Your task to perform on an android device: Go to Amazon Image 0: 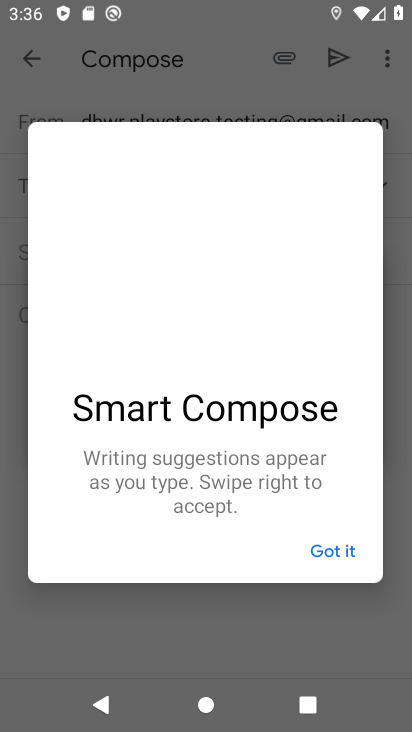
Step 0: press back button
Your task to perform on an android device: Go to Amazon Image 1: 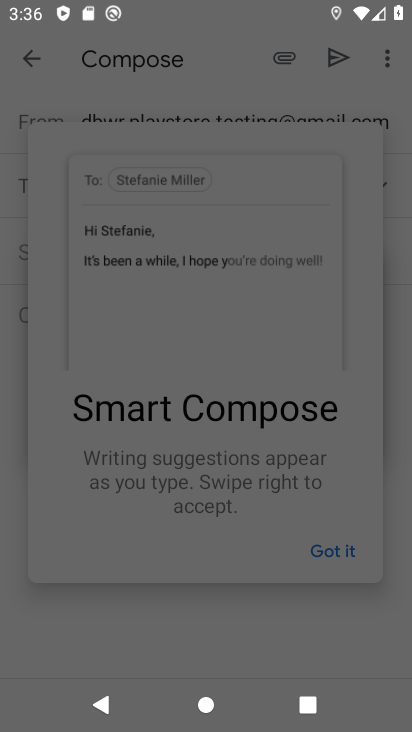
Step 1: press home button
Your task to perform on an android device: Go to Amazon Image 2: 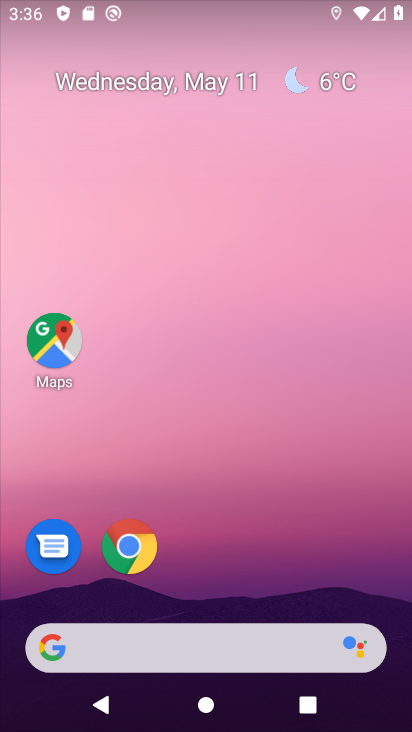
Step 2: click (147, 540)
Your task to perform on an android device: Go to Amazon Image 3: 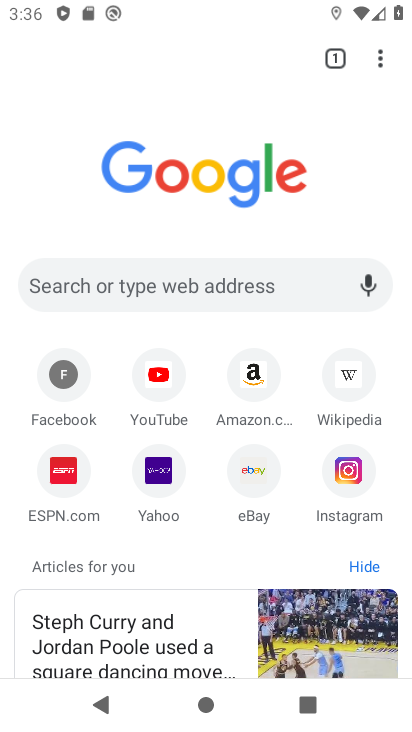
Step 3: click (271, 385)
Your task to perform on an android device: Go to Amazon Image 4: 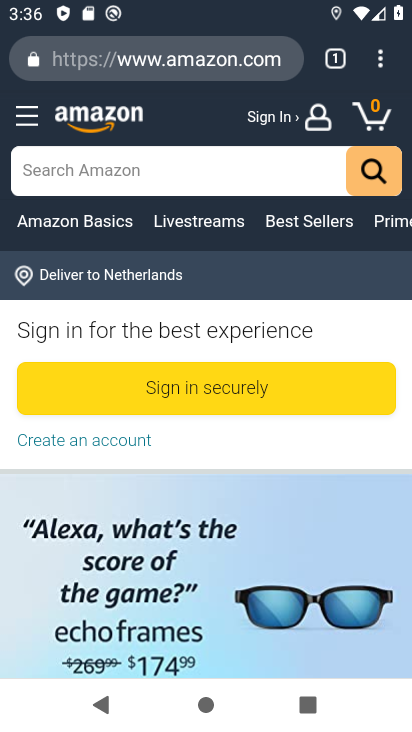
Step 4: task complete